Your task to perform on an android device: When is my next appointment? Image 0: 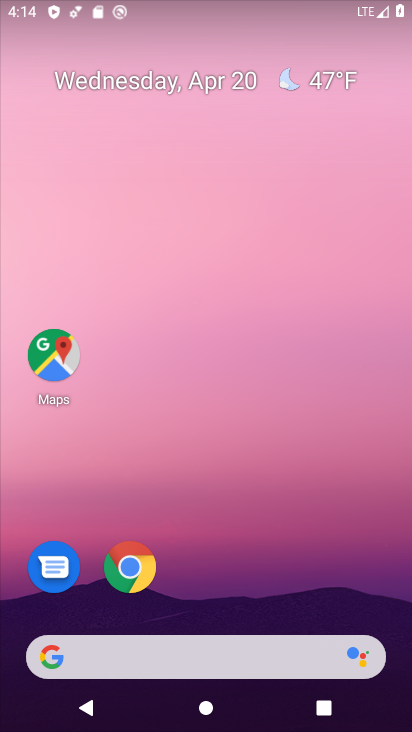
Step 0: drag from (389, 569) to (304, 34)
Your task to perform on an android device: When is my next appointment? Image 1: 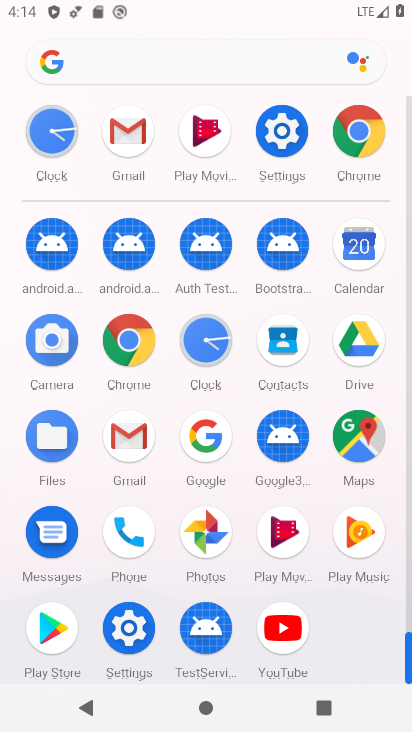
Step 1: drag from (11, 530) to (16, 248)
Your task to perform on an android device: When is my next appointment? Image 2: 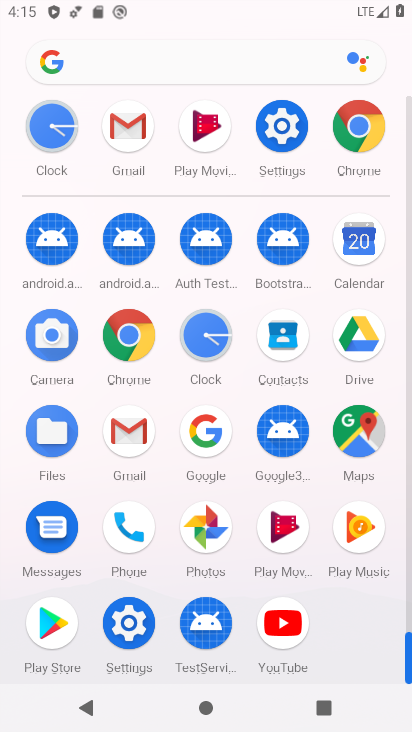
Step 2: drag from (11, 520) to (25, 278)
Your task to perform on an android device: When is my next appointment? Image 3: 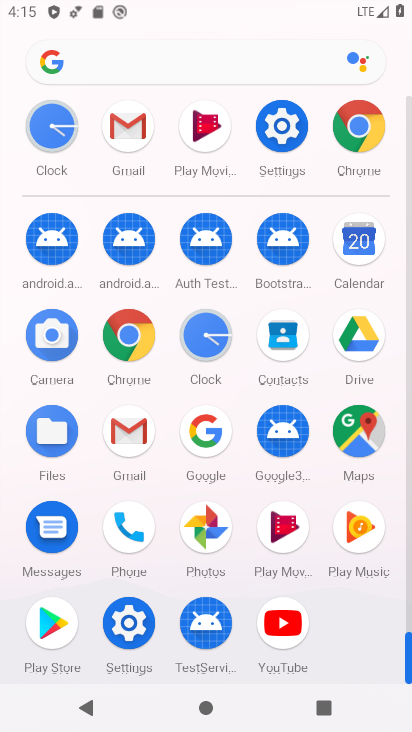
Step 3: click (363, 244)
Your task to perform on an android device: When is my next appointment? Image 4: 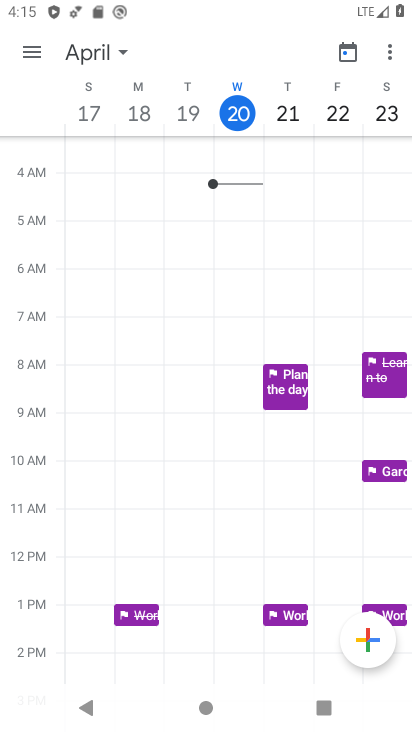
Step 4: click (31, 55)
Your task to perform on an android device: When is my next appointment? Image 5: 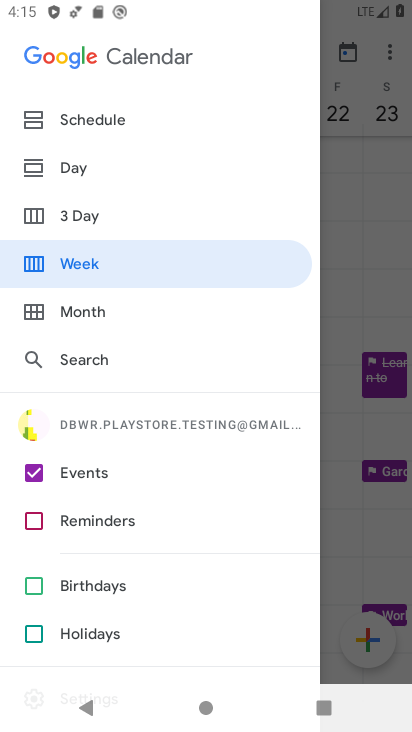
Step 5: click (181, 117)
Your task to perform on an android device: When is my next appointment? Image 6: 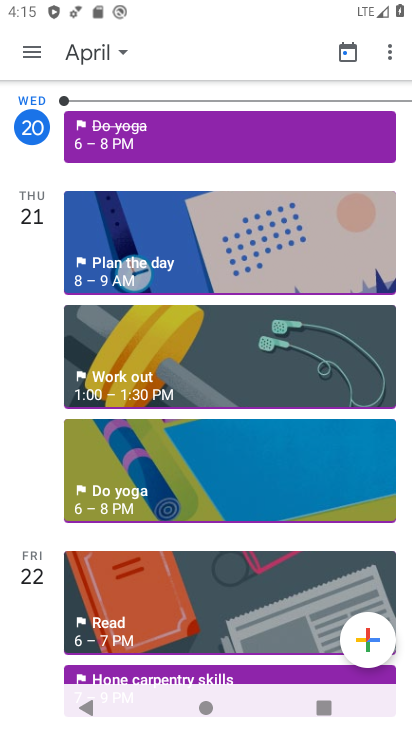
Step 6: drag from (160, 402) to (178, 128)
Your task to perform on an android device: When is my next appointment? Image 7: 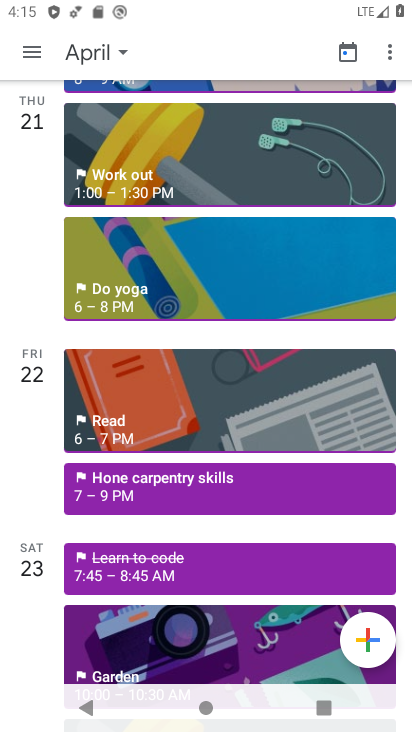
Step 7: click (25, 52)
Your task to perform on an android device: When is my next appointment? Image 8: 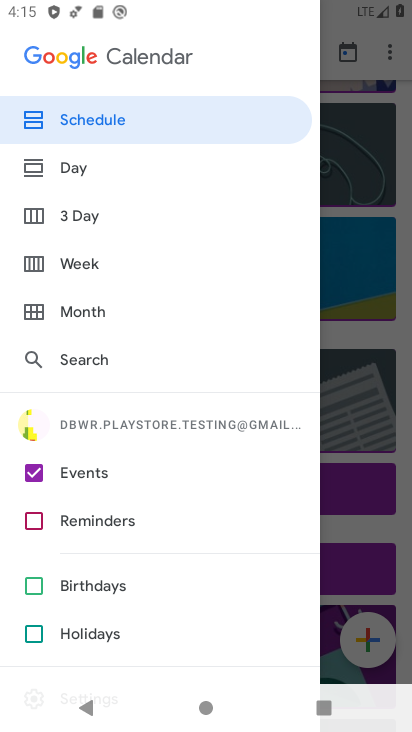
Step 8: click (35, 522)
Your task to perform on an android device: When is my next appointment? Image 9: 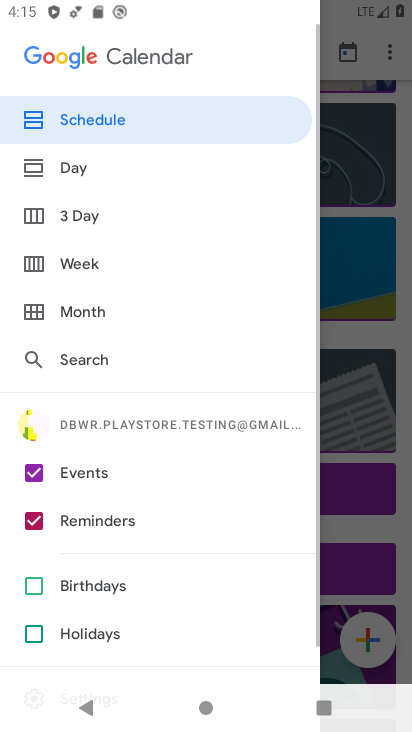
Step 9: click (35, 481)
Your task to perform on an android device: When is my next appointment? Image 10: 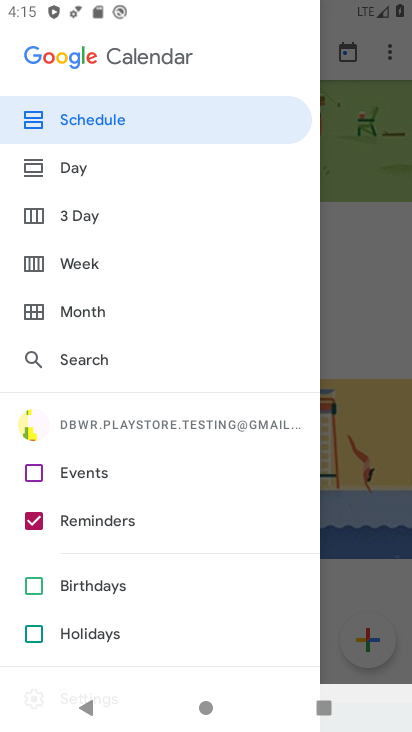
Step 10: click (329, 135)
Your task to perform on an android device: When is my next appointment? Image 11: 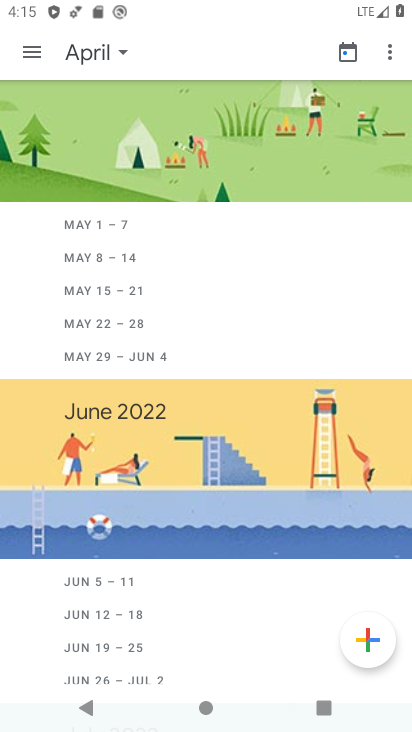
Step 11: task complete